Your task to perform on an android device: Open the Play Movies app and select the watchlist tab. Image 0: 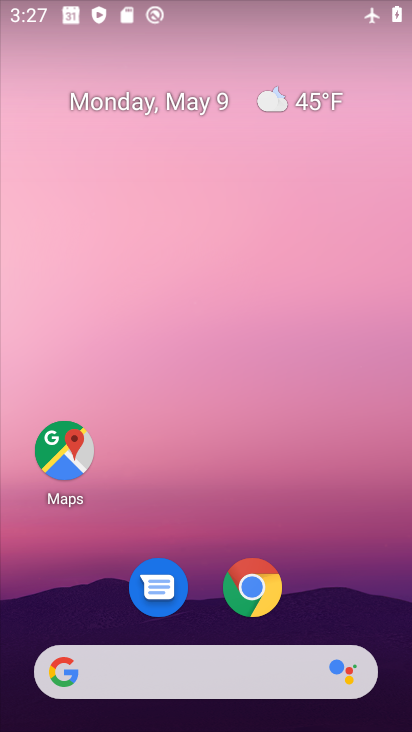
Step 0: drag from (398, 669) to (402, 223)
Your task to perform on an android device: Open the Play Movies app and select the watchlist tab. Image 1: 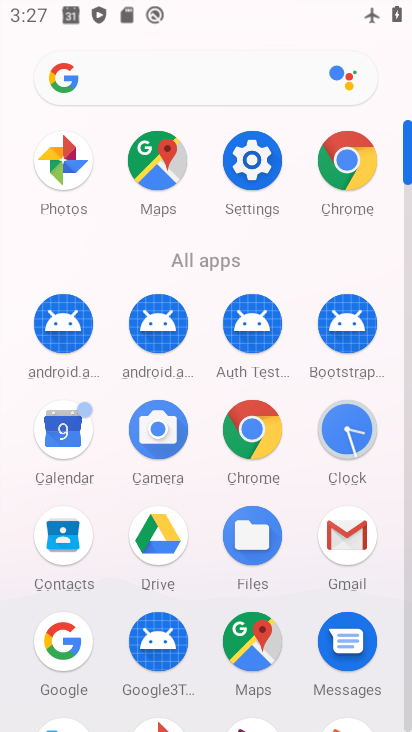
Step 1: drag from (291, 699) to (303, 307)
Your task to perform on an android device: Open the Play Movies app and select the watchlist tab. Image 2: 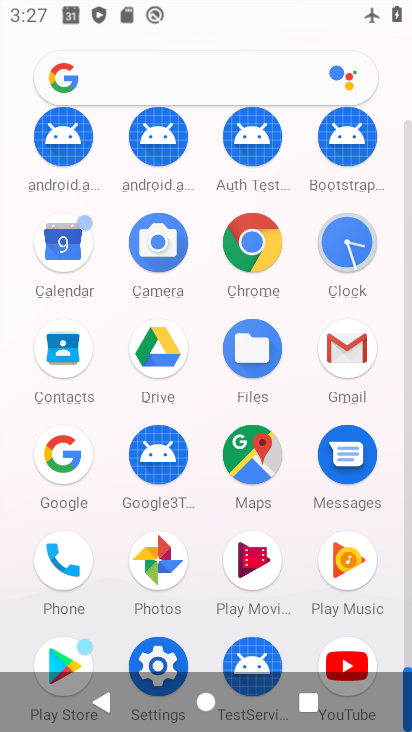
Step 2: drag from (316, 535) to (317, 260)
Your task to perform on an android device: Open the Play Movies app and select the watchlist tab. Image 3: 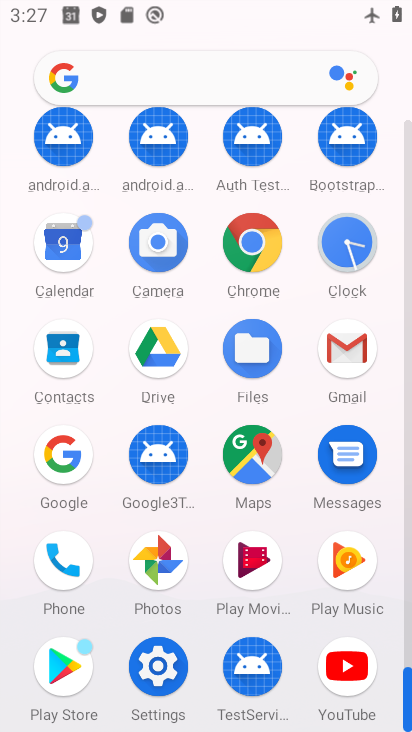
Step 3: click (259, 569)
Your task to perform on an android device: Open the Play Movies app and select the watchlist tab. Image 4: 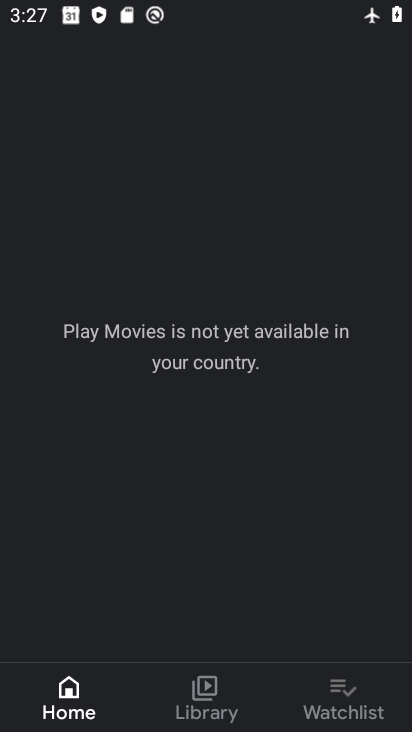
Step 4: click (339, 689)
Your task to perform on an android device: Open the Play Movies app and select the watchlist tab. Image 5: 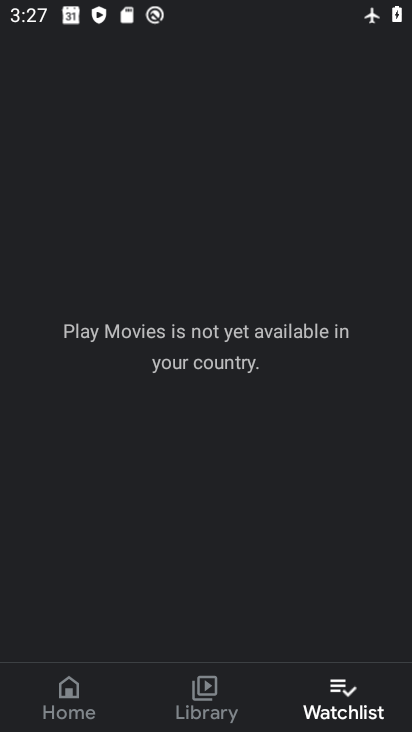
Step 5: task complete